Your task to perform on an android device: add a contact Image 0: 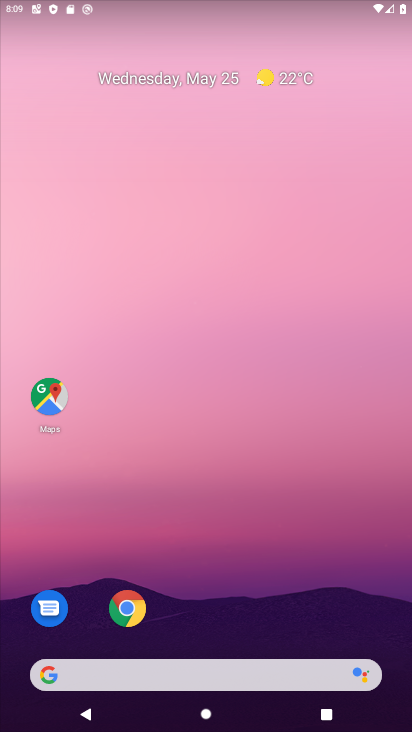
Step 0: drag from (254, 577) to (278, 50)
Your task to perform on an android device: add a contact Image 1: 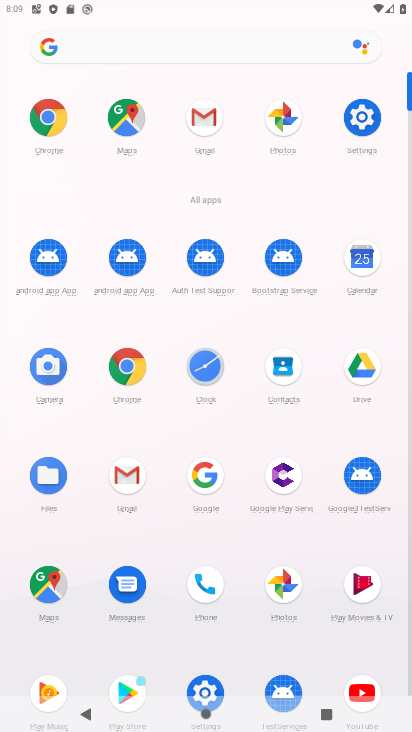
Step 1: click (283, 366)
Your task to perform on an android device: add a contact Image 2: 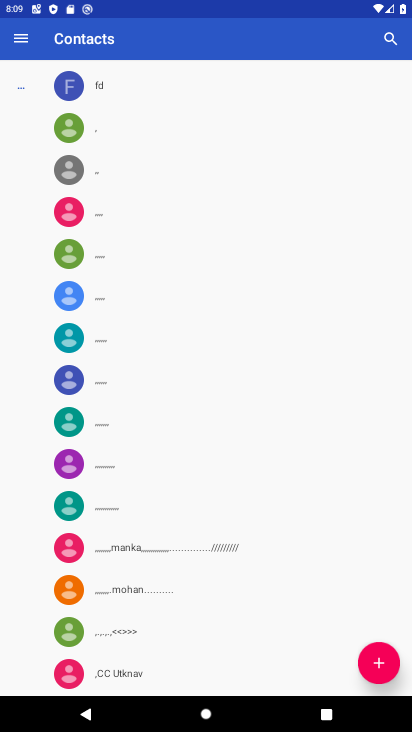
Step 2: click (380, 660)
Your task to perform on an android device: add a contact Image 3: 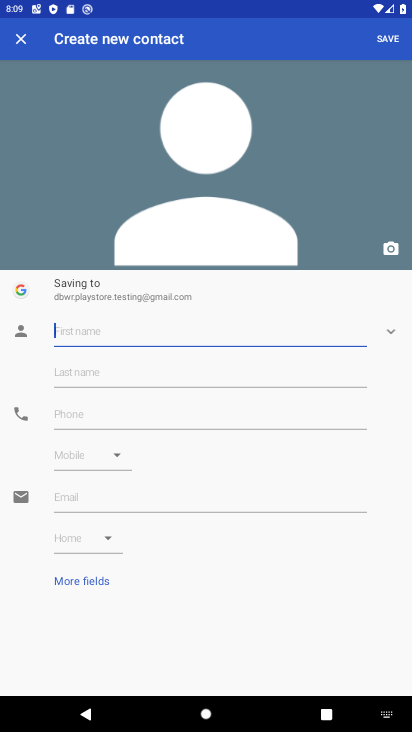
Step 3: click (111, 329)
Your task to perform on an android device: add a contact Image 4: 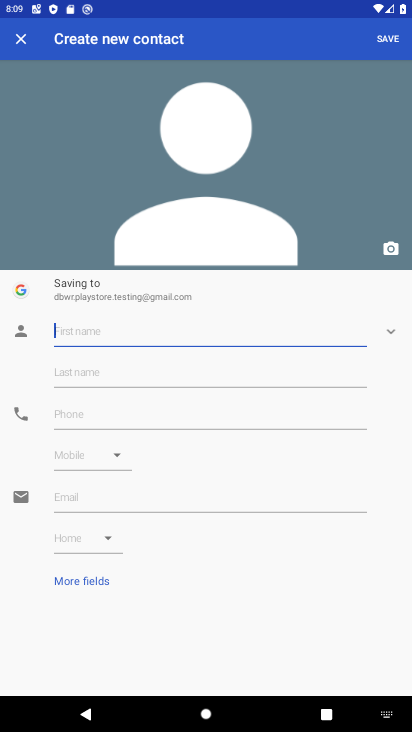
Step 4: type "Kulbooshan"
Your task to perform on an android device: add a contact Image 5: 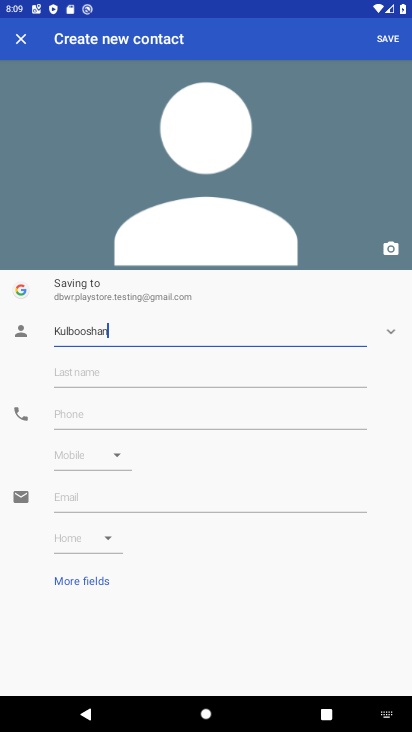
Step 5: click (251, 377)
Your task to perform on an android device: add a contact Image 6: 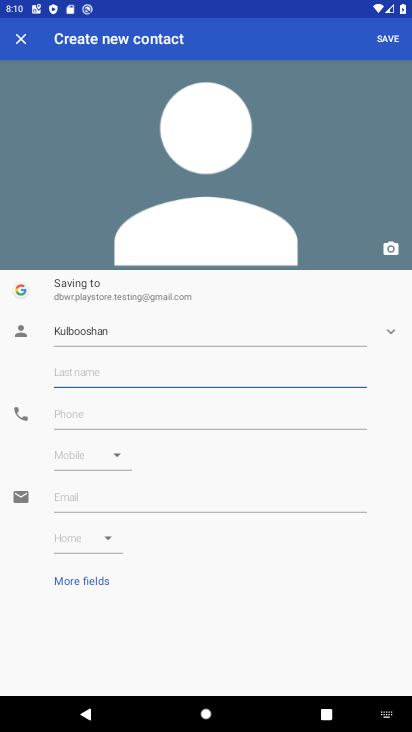
Step 6: type "Kharbanda"
Your task to perform on an android device: add a contact Image 7: 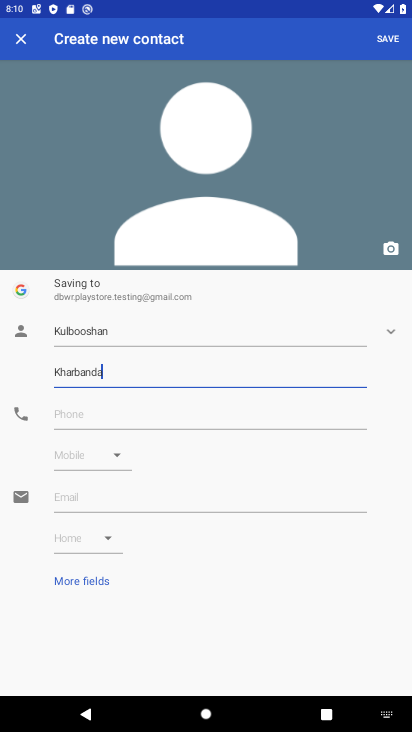
Step 7: click (259, 403)
Your task to perform on an android device: add a contact Image 8: 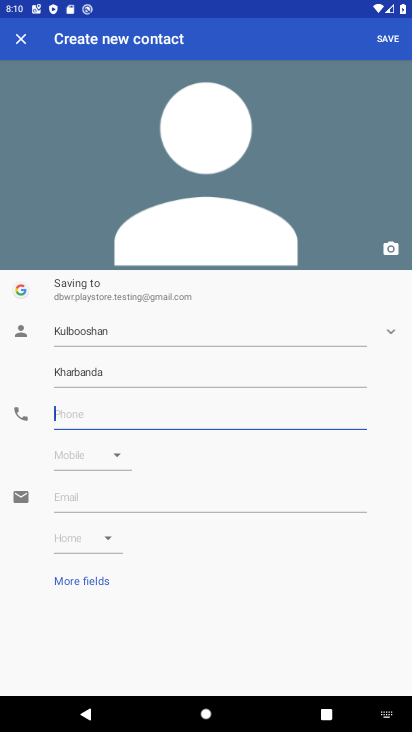
Step 8: type "09977553311"
Your task to perform on an android device: add a contact Image 9: 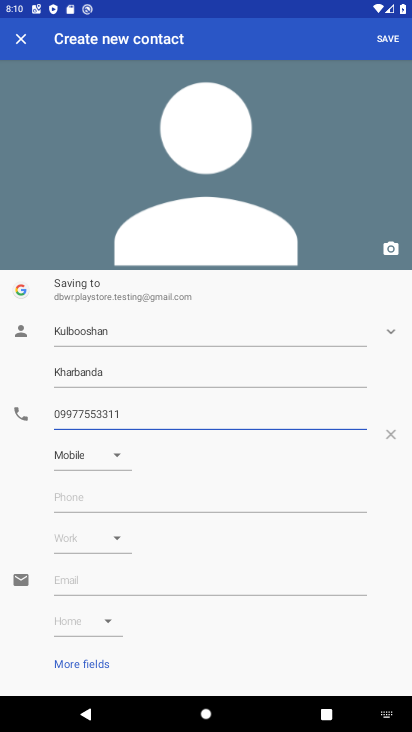
Step 9: click (392, 36)
Your task to perform on an android device: add a contact Image 10: 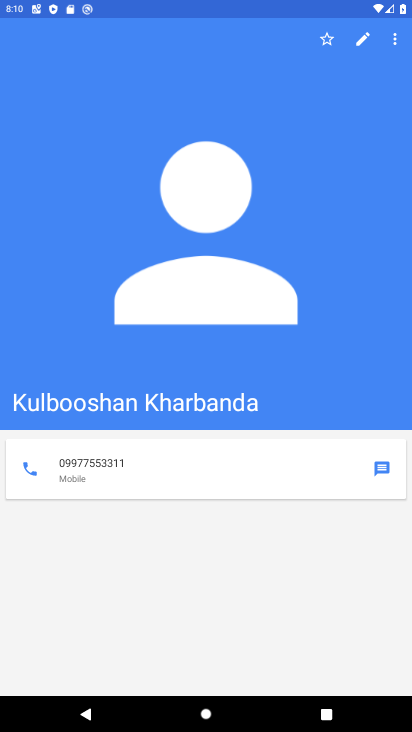
Step 10: task complete